Your task to perform on an android device: show emergency info Image 0: 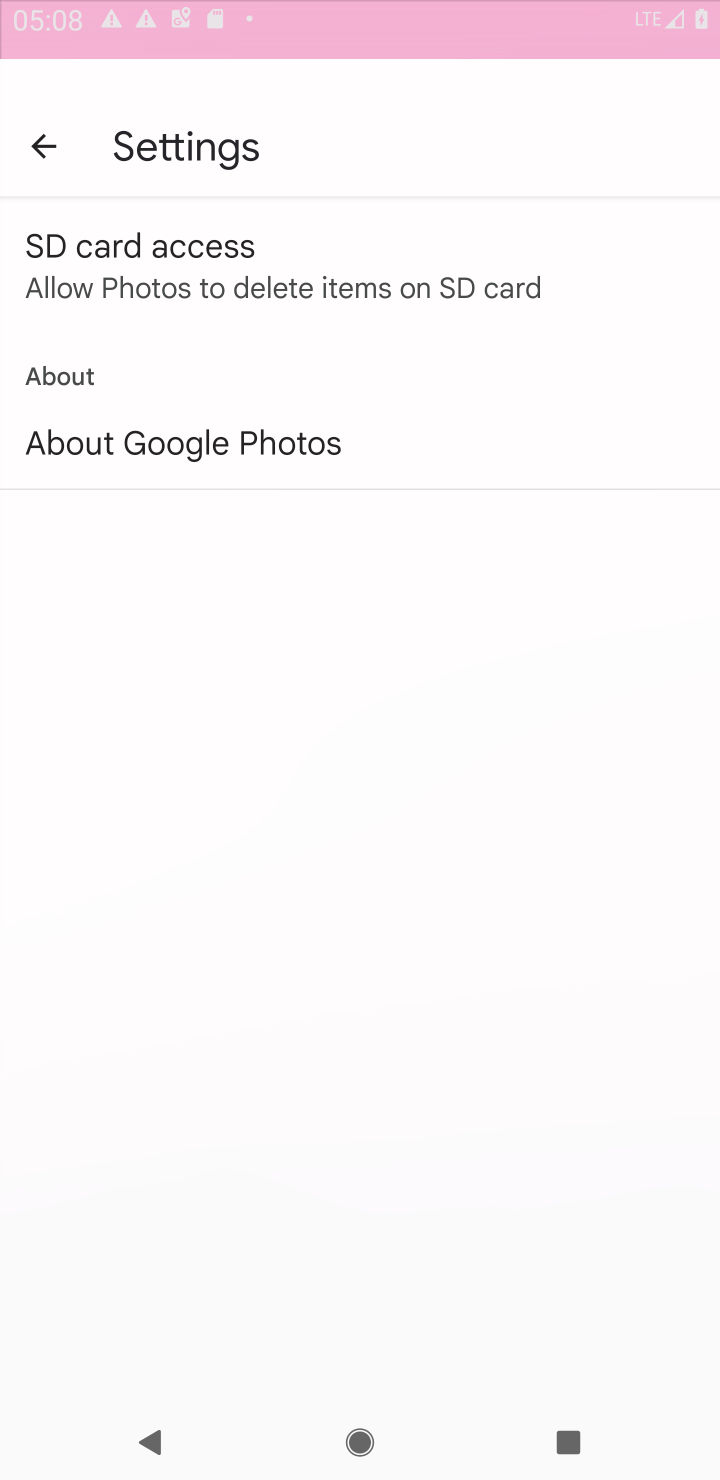
Step 0: press home button
Your task to perform on an android device: show emergency info Image 1: 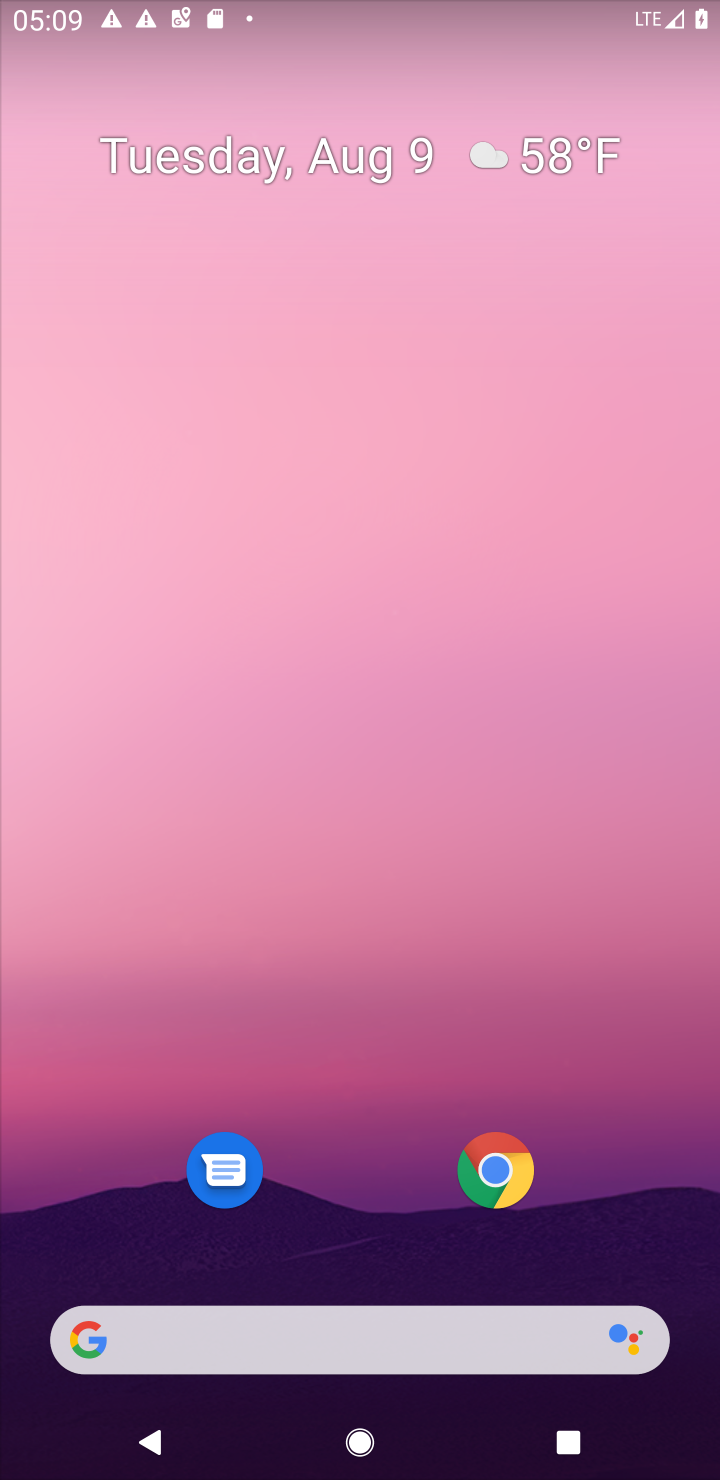
Step 1: drag from (319, 875) to (235, 166)
Your task to perform on an android device: show emergency info Image 2: 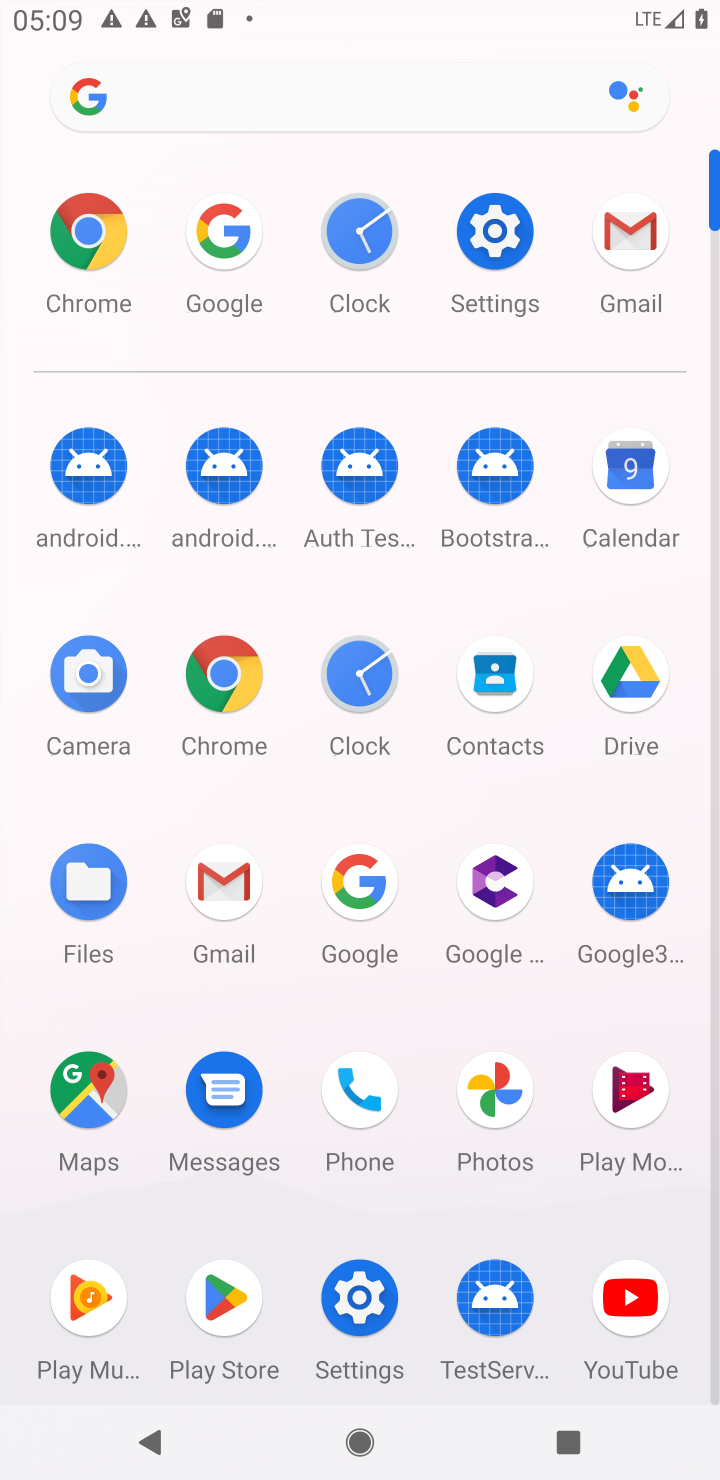
Step 2: click (494, 233)
Your task to perform on an android device: show emergency info Image 3: 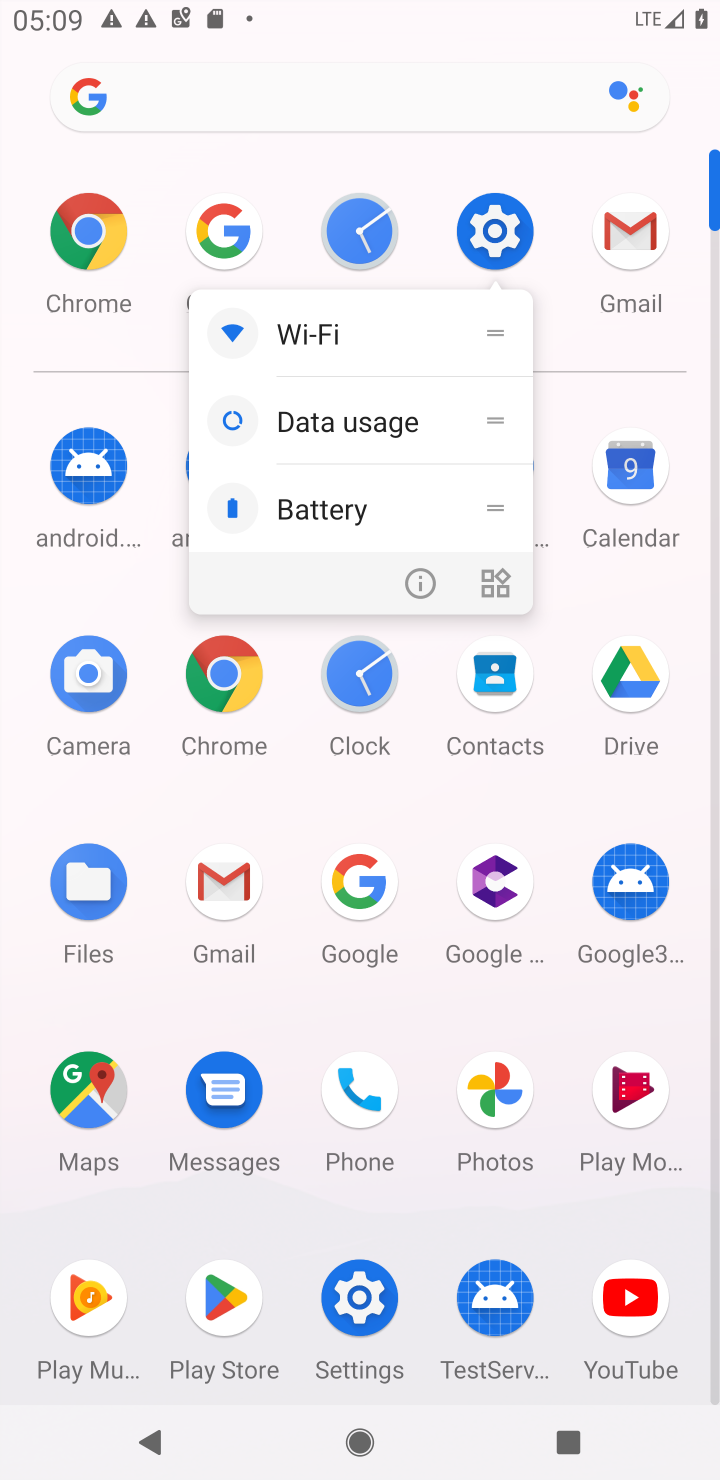
Step 3: click (494, 233)
Your task to perform on an android device: show emergency info Image 4: 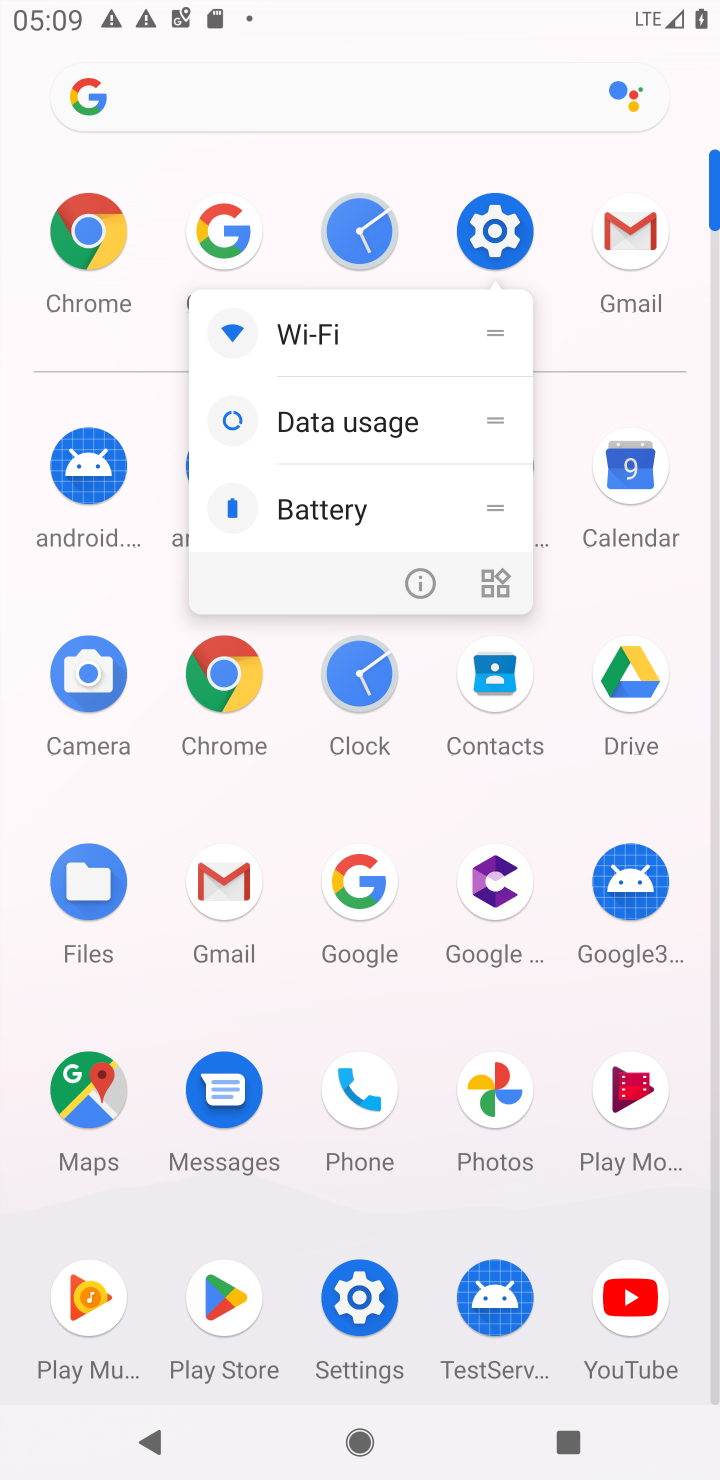
Step 4: click (486, 235)
Your task to perform on an android device: show emergency info Image 5: 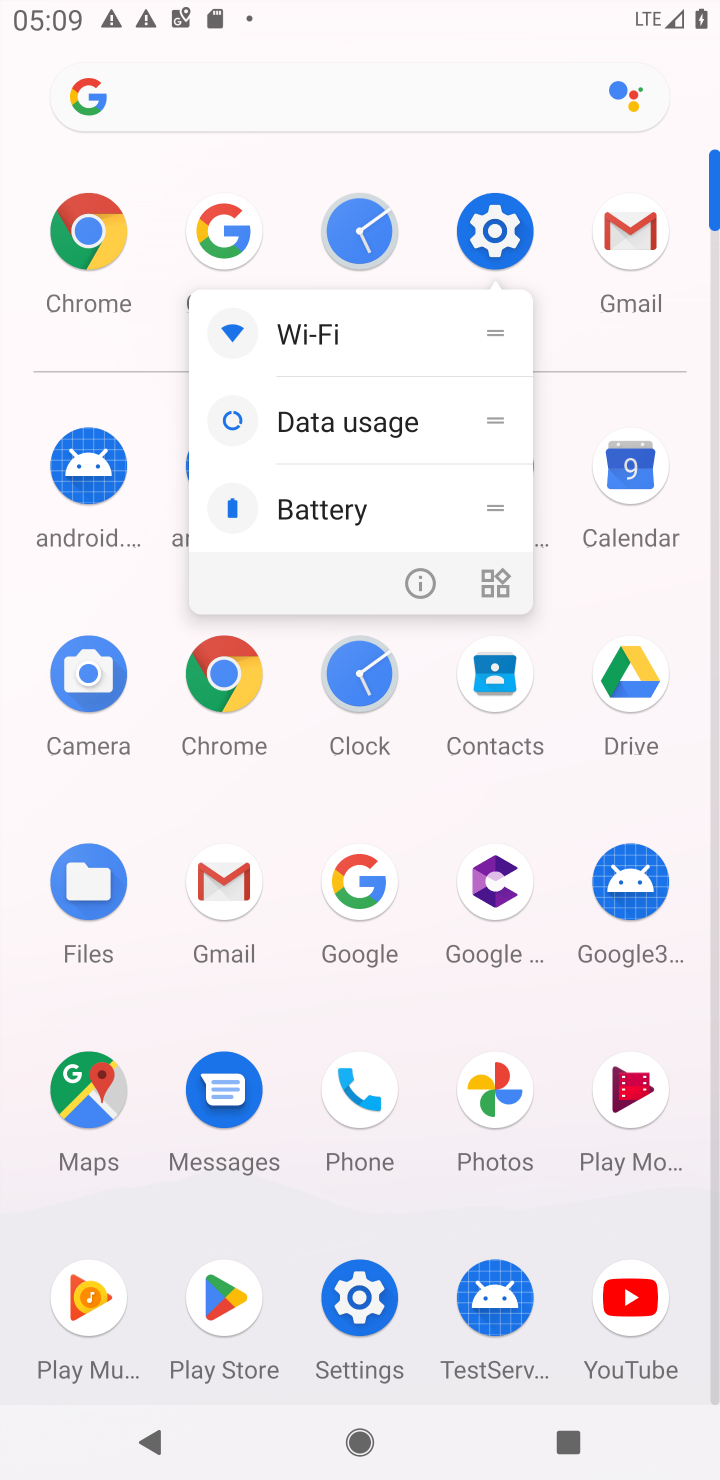
Step 5: click (486, 230)
Your task to perform on an android device: show emergency info Image 6: 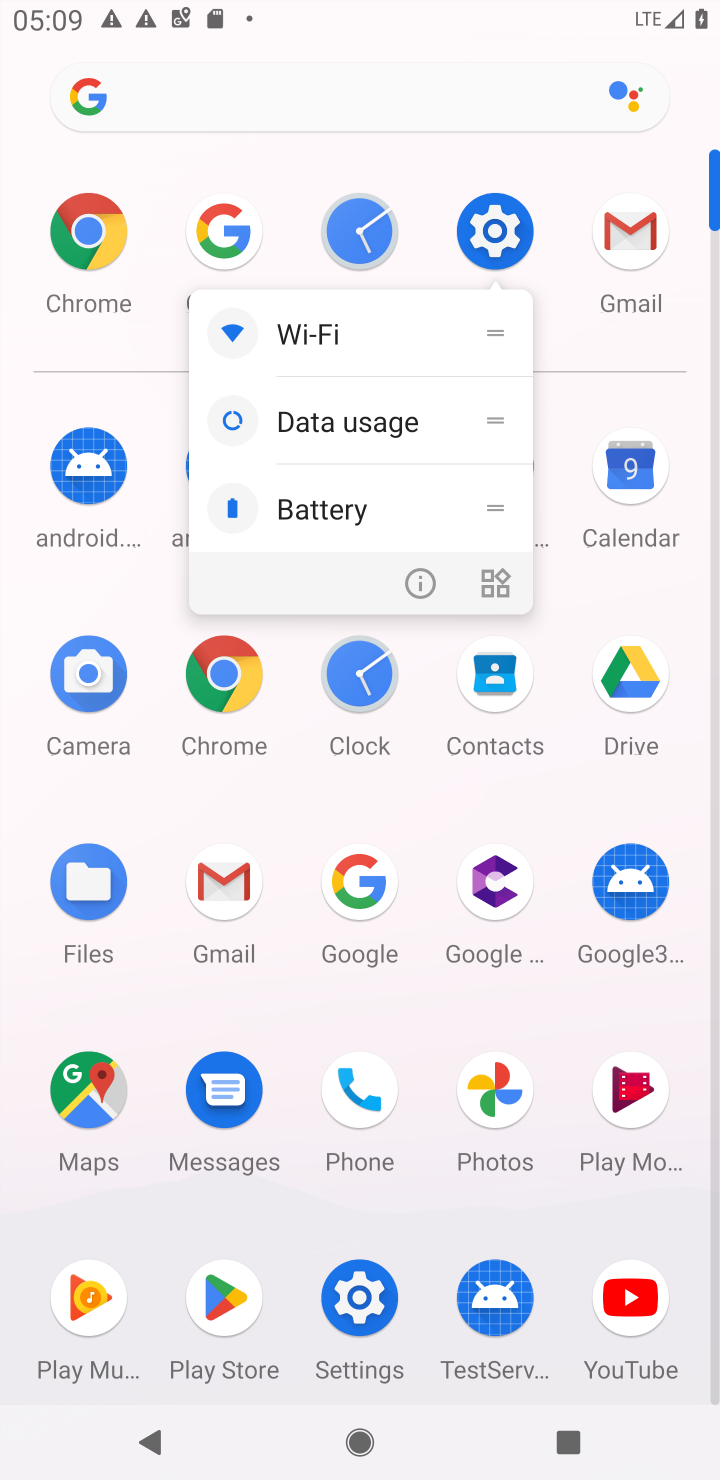
Step 6: click (486, 230)
Your task to perform on an android device: show emergency info Image 7: 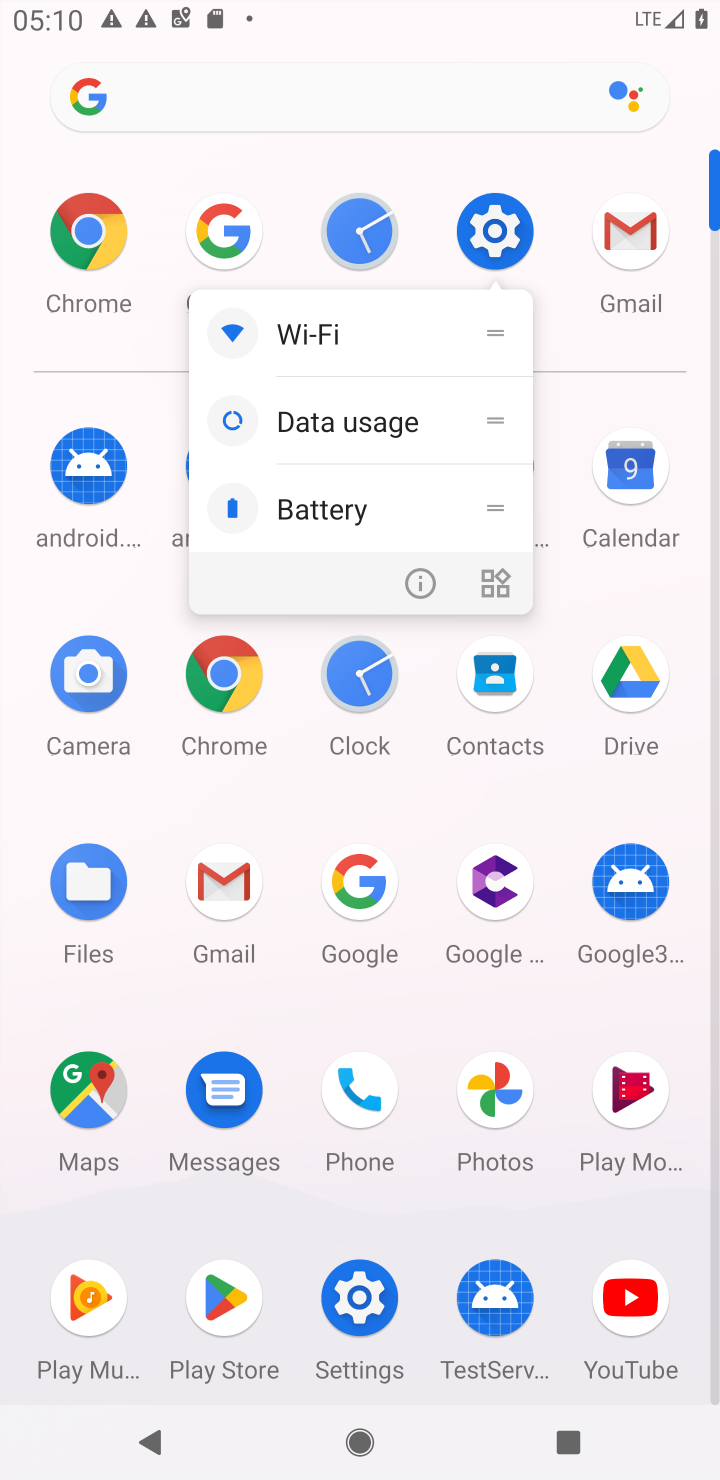
Step 7: click (491, 224)
Your task to perform on an android device: show emergency info Image 8: 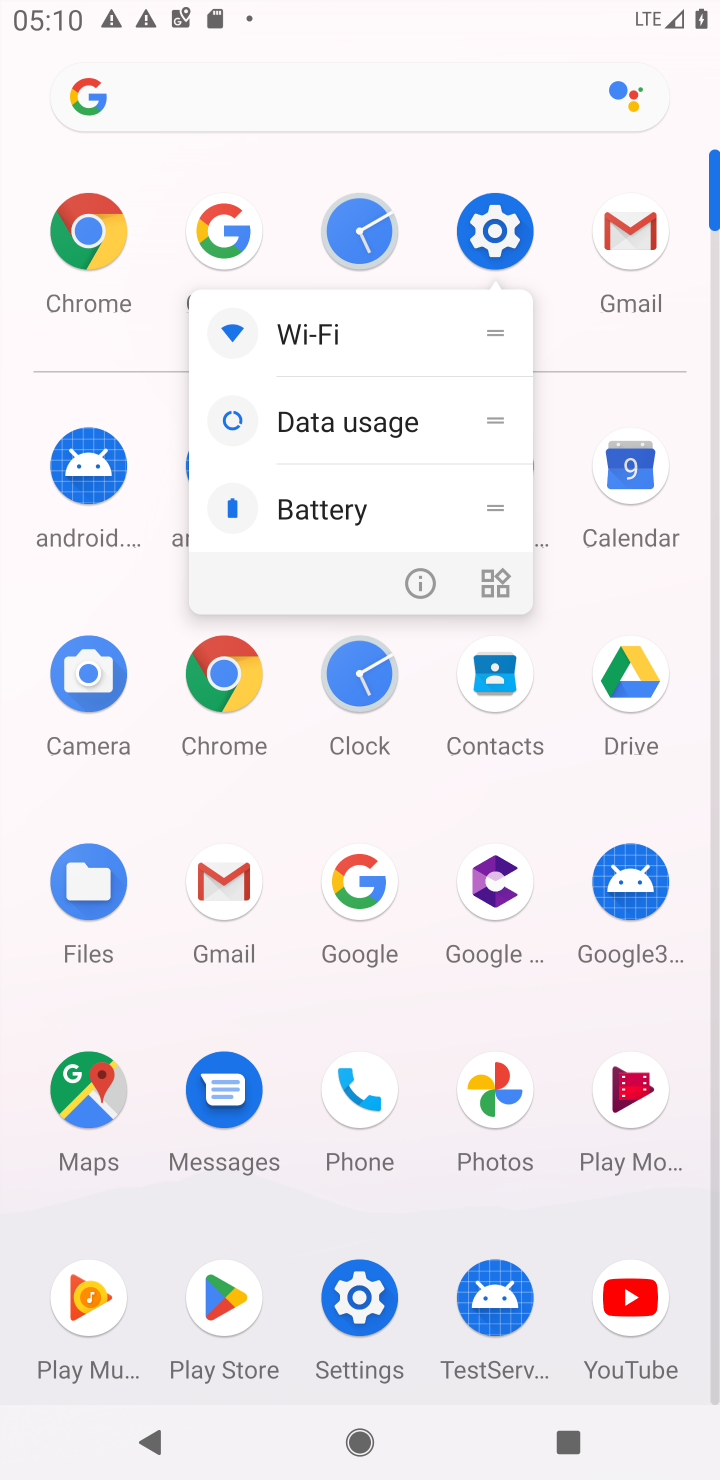
Step 8: click (493, 224)
Your task to perform on an android device: show emergency info Image 9: 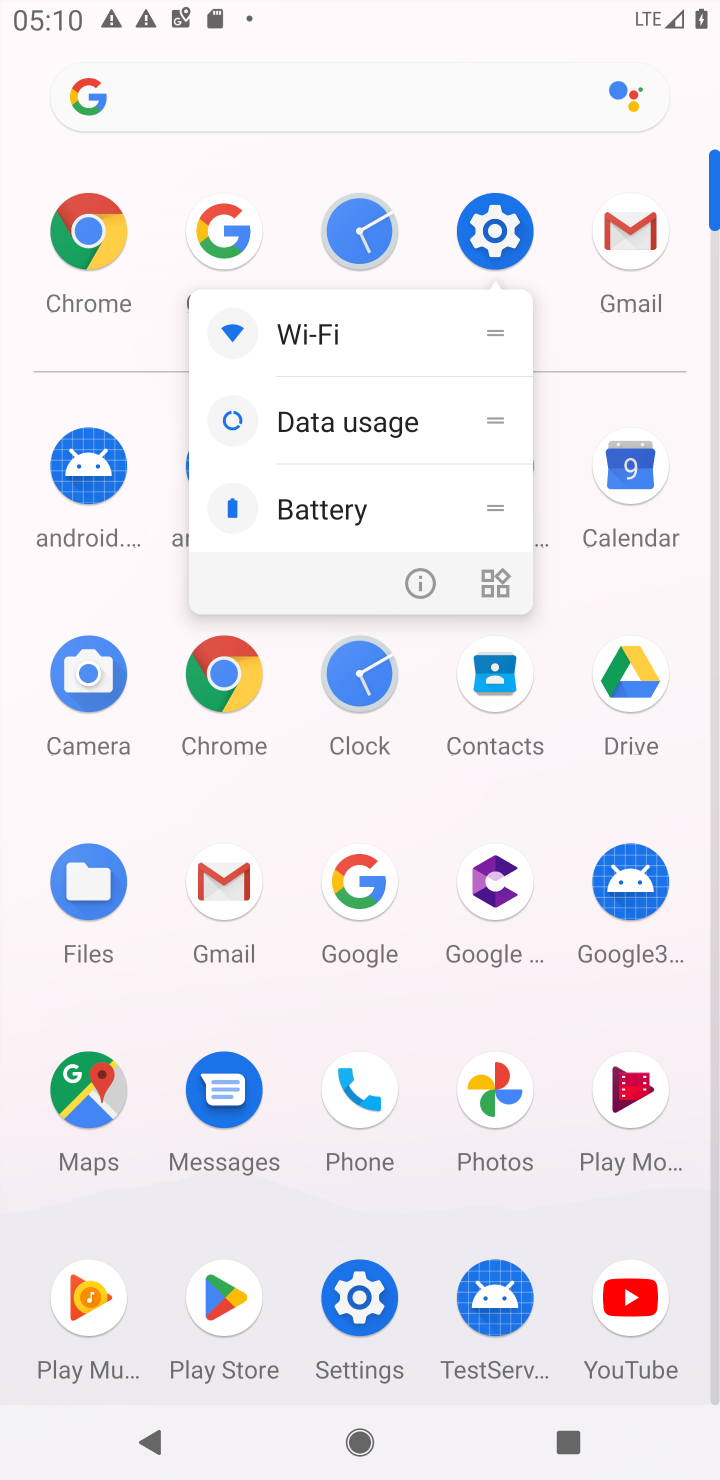
Step 9: click (511, 230)
Your task to perform on an android device: show emergency info Image 10: 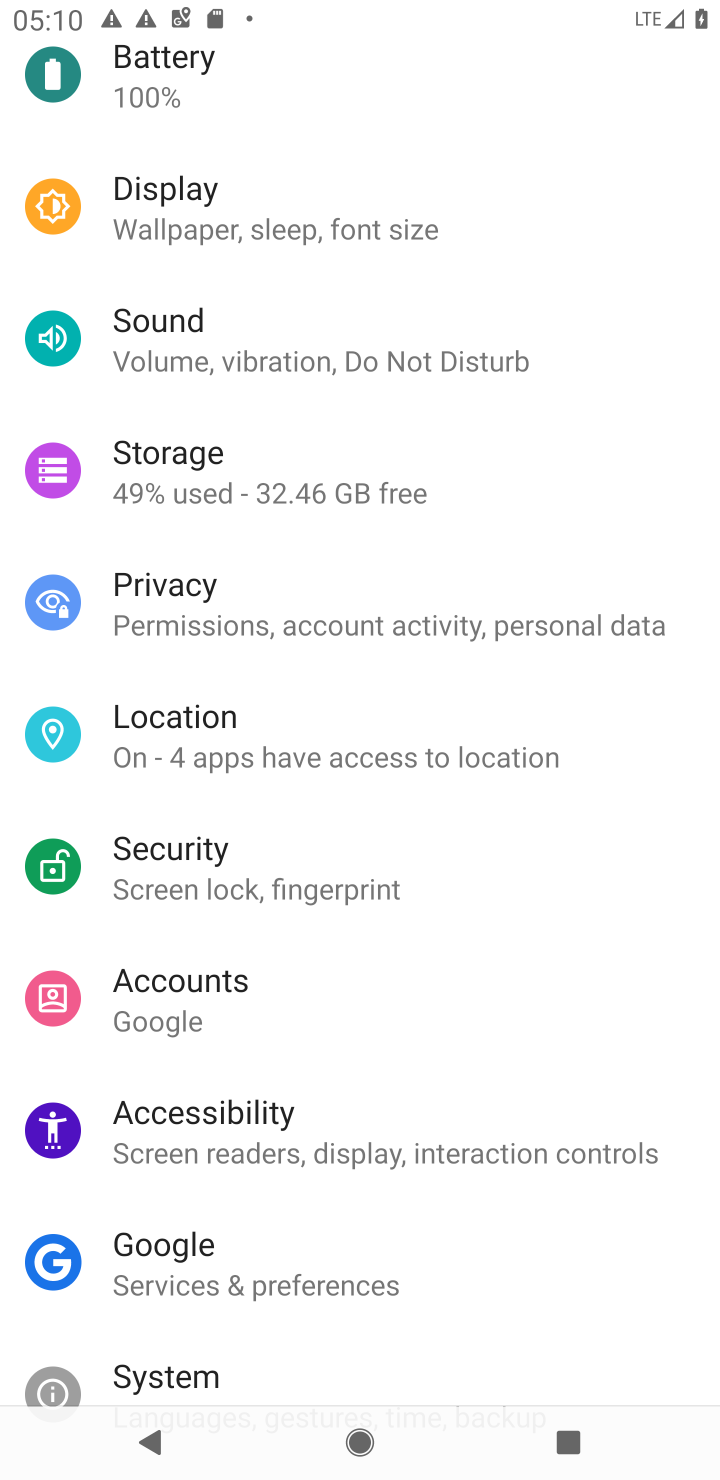
Step 10: drag from (555, 1159) to (415, 14)
Your task to perform on an android device: show emergency info Image 11: 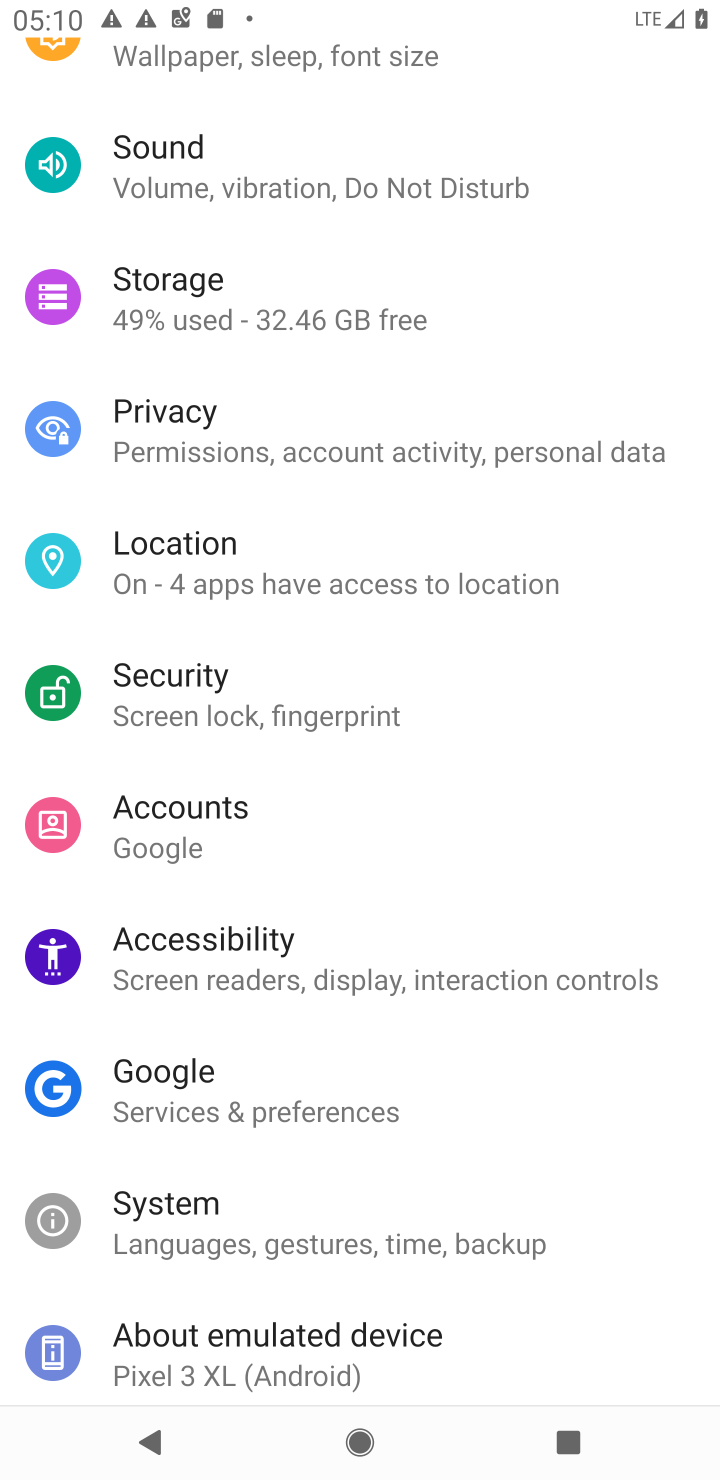
Step 11: click (205, 1337)
Your task to perform on an android device: show emergency info Image 12: 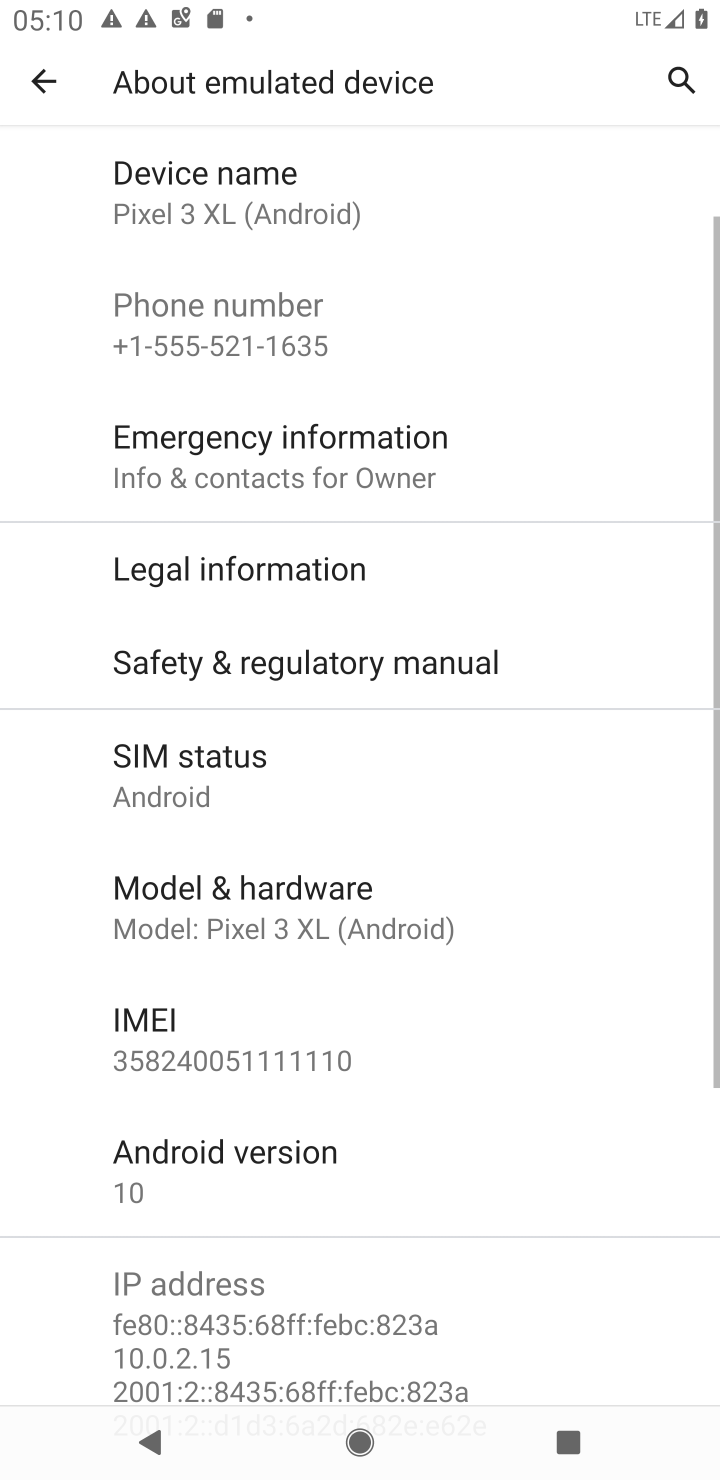
Step 12: click (276, 455)
Your task to perform on an android device: show emergency info Image 13: 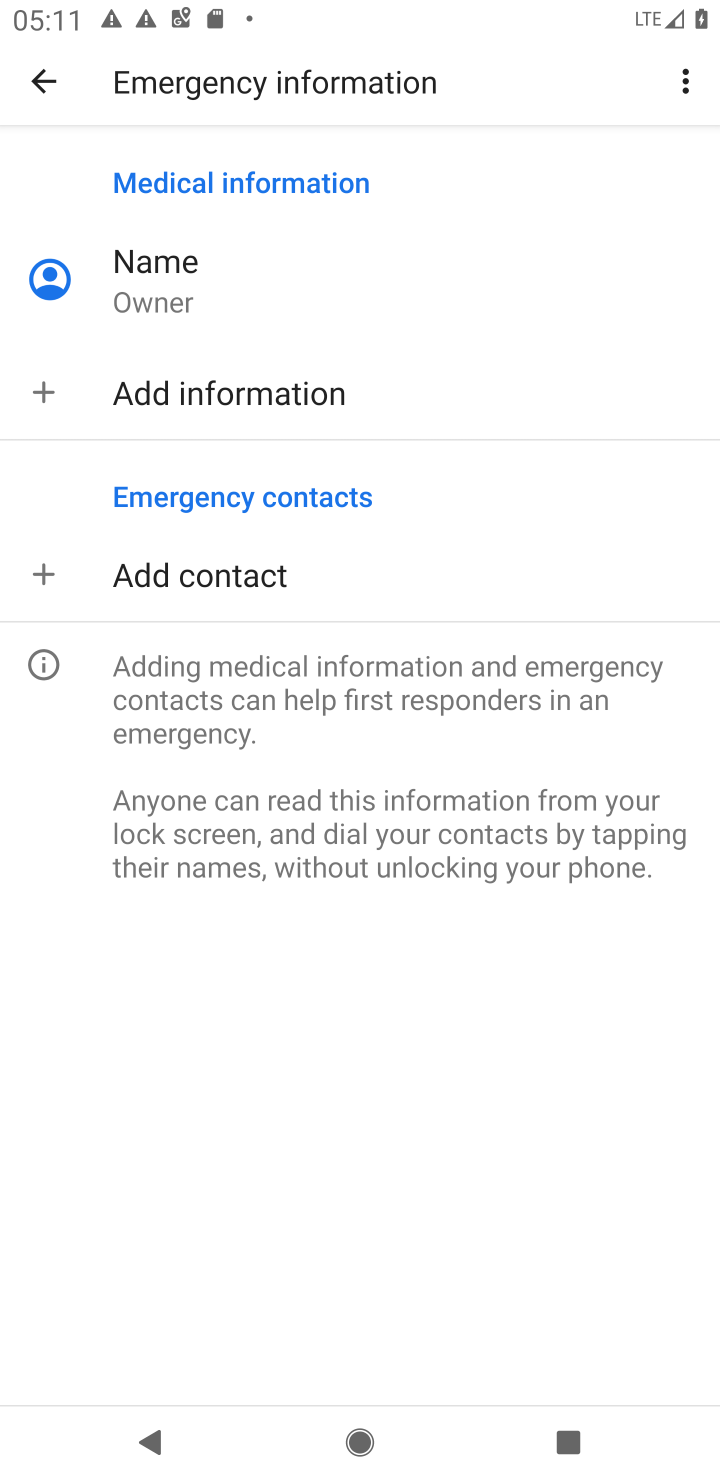
Step 13: task complete